Your task to perform on an android device: Open Google Chrome Image 0: 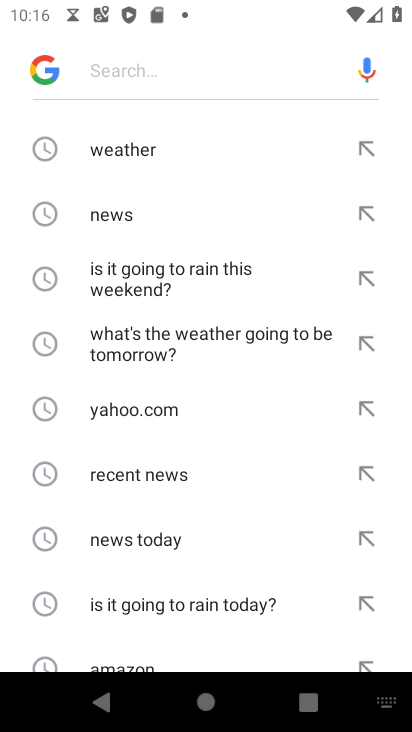
Step 0: press home button
Your task to perform on an android device: Open Google Chrome Image 1: 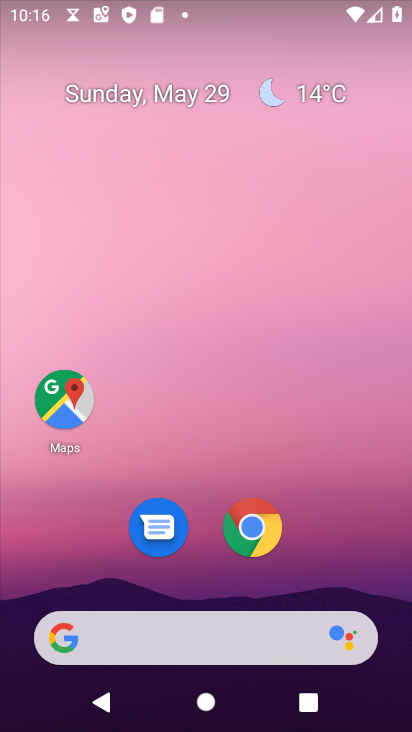
Step 1: click (252, 539)
Your task to perform on an android device: Open Google Chrome Image 2: 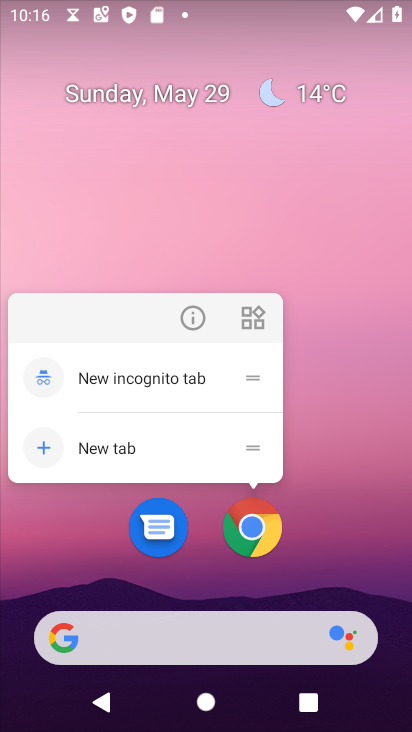
Step 2: click (260, 531)
Your task to perform on an android device: Open Google Chrome Image 3: 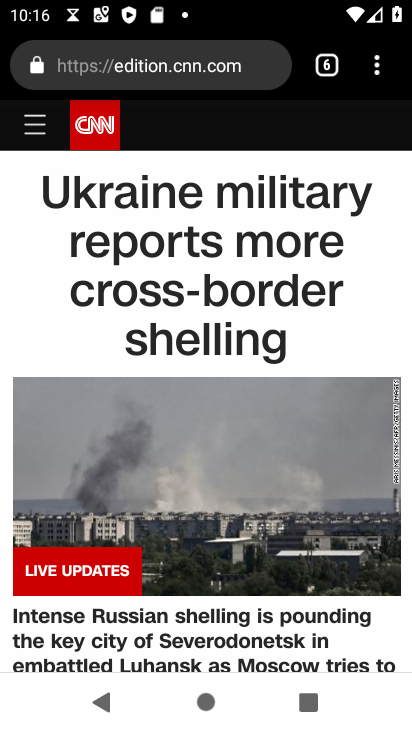
Step 3: task complete